Your task to perform on an android device: Search for "logitech g910" on target, select the first entry, and add it to the cart. Image 0: 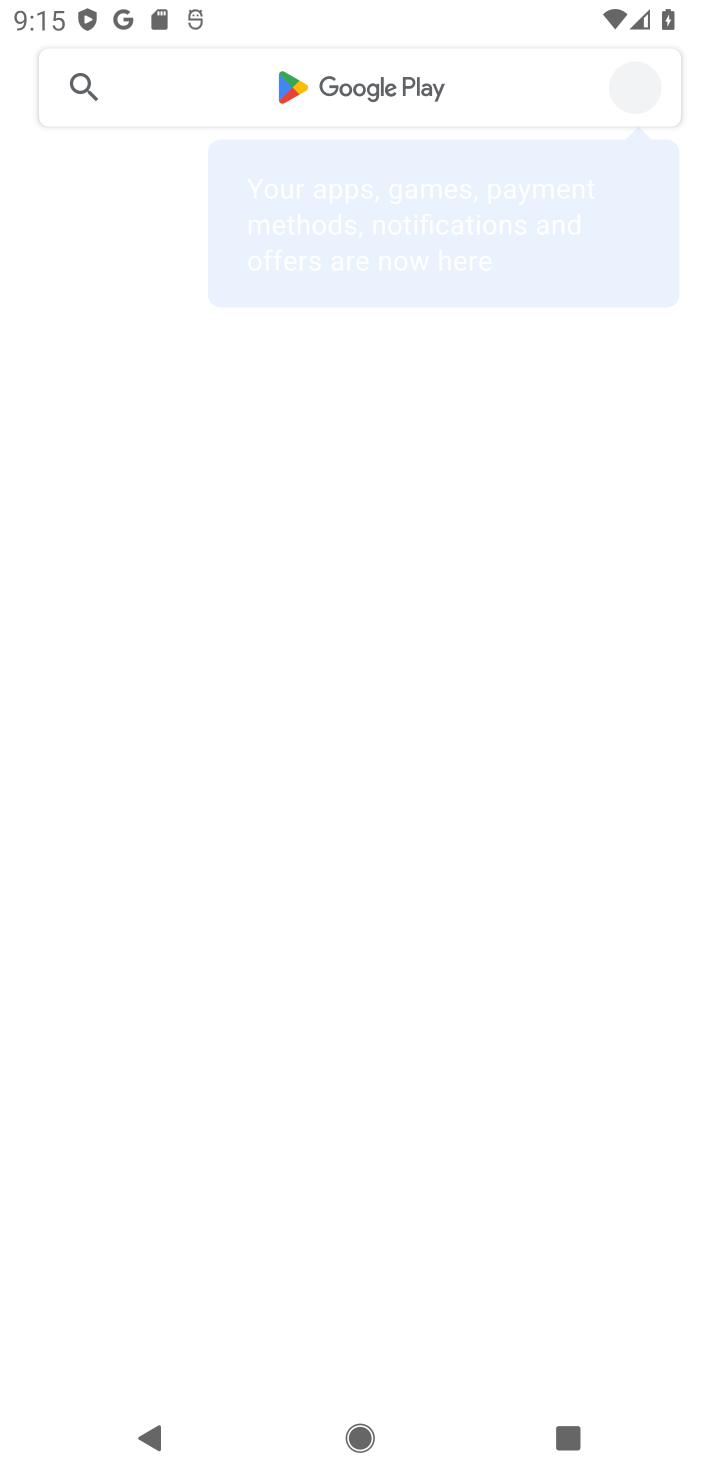
Step 0: press home button
Your task to perform on an android device: Search for "logitech g910" on target, select the first entry, and add it to the cart. Image 1: 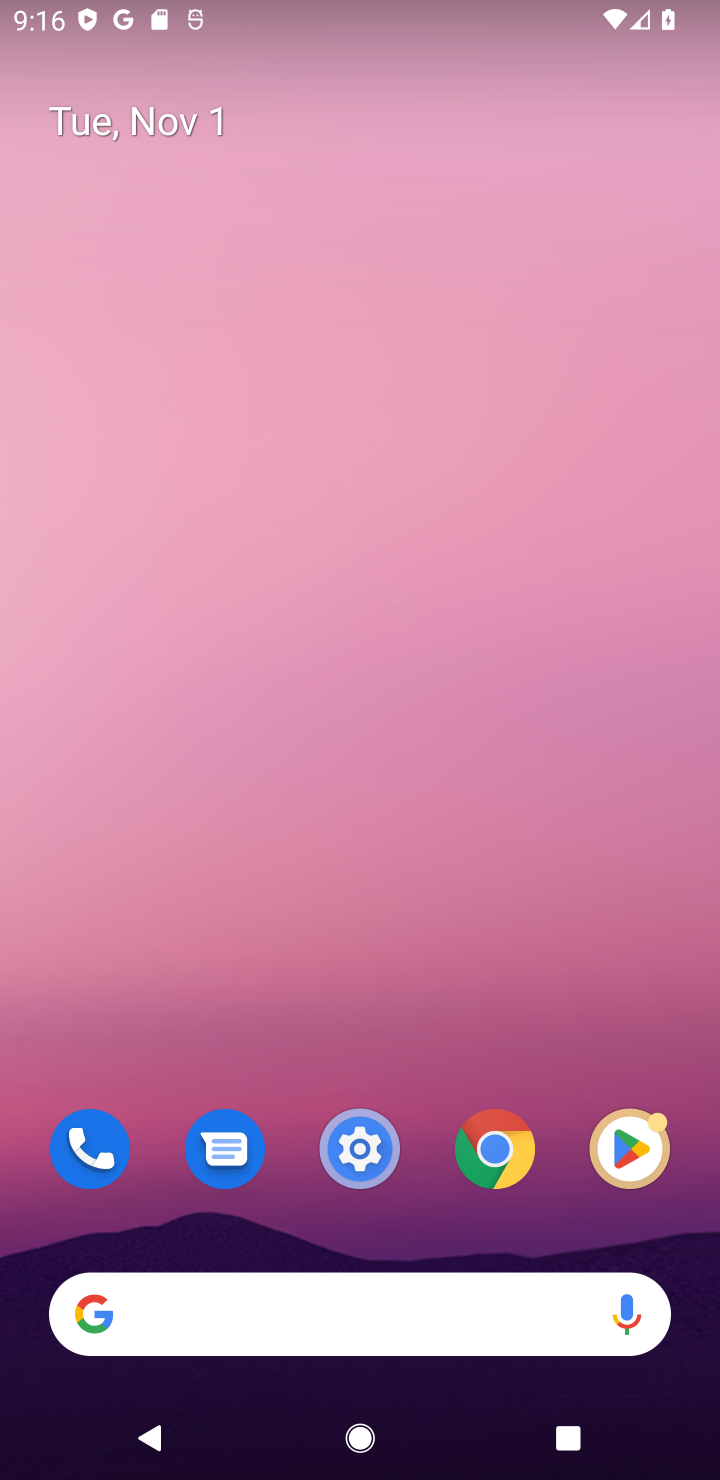
Step 1: click (161, 1299)
Your task to perform on an android device: Search for "logitech g910" on target, select the first entry, and add it to the cart. Image 2: 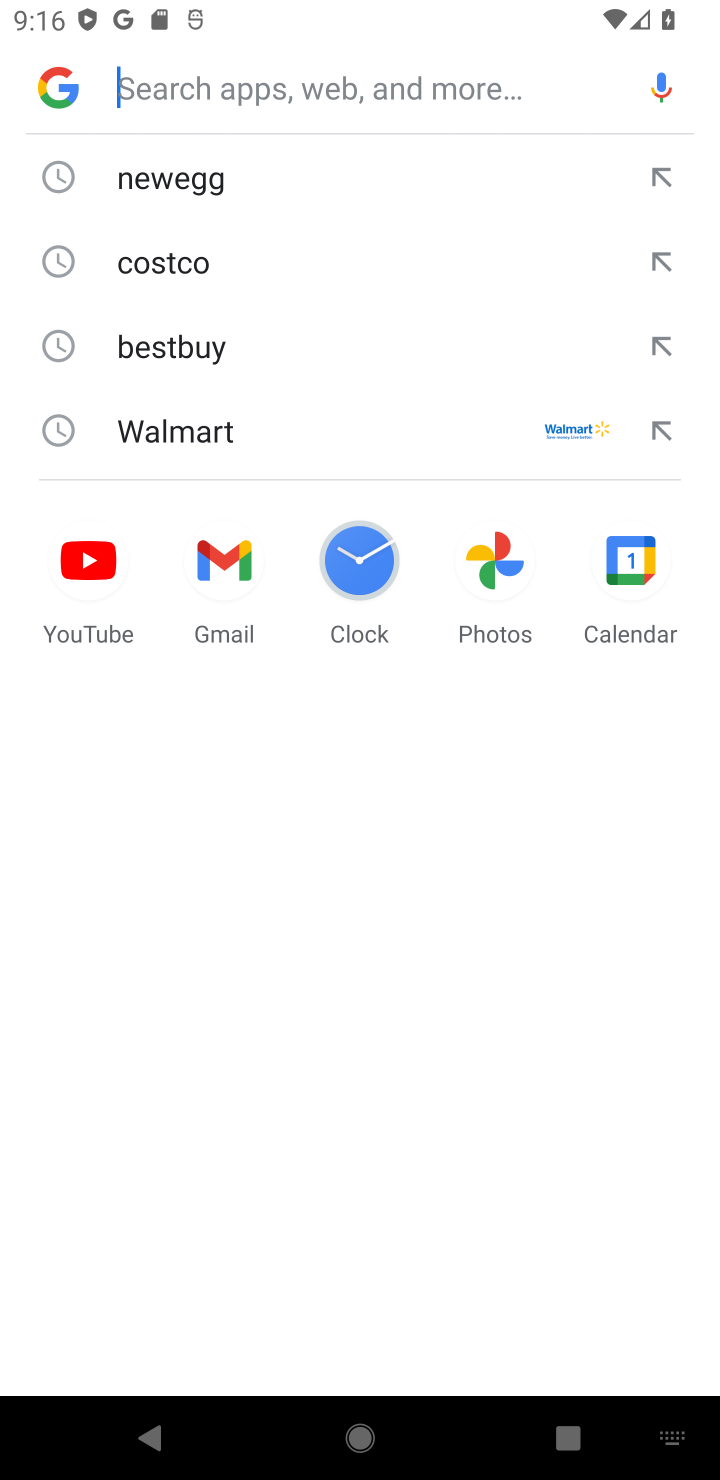
Step 2: press enter
Your task to perform on an android device: Search for "logitech g910" on target, select the first entry, and add it to the cart. Image 3: 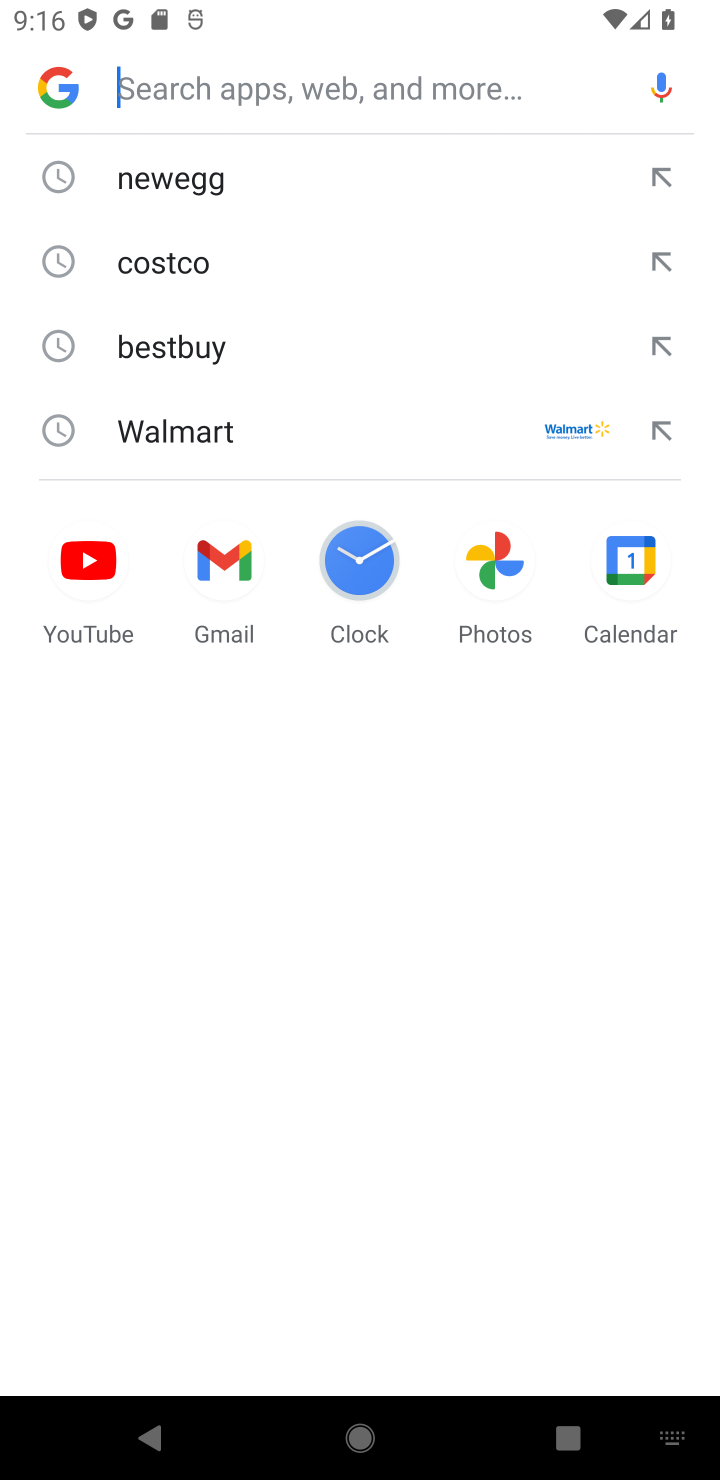
Step 3: type "traget"
Your task to perform on an android device: Search for "logitech g910" on target, select the first entry, and add it to the cart. Image 4: 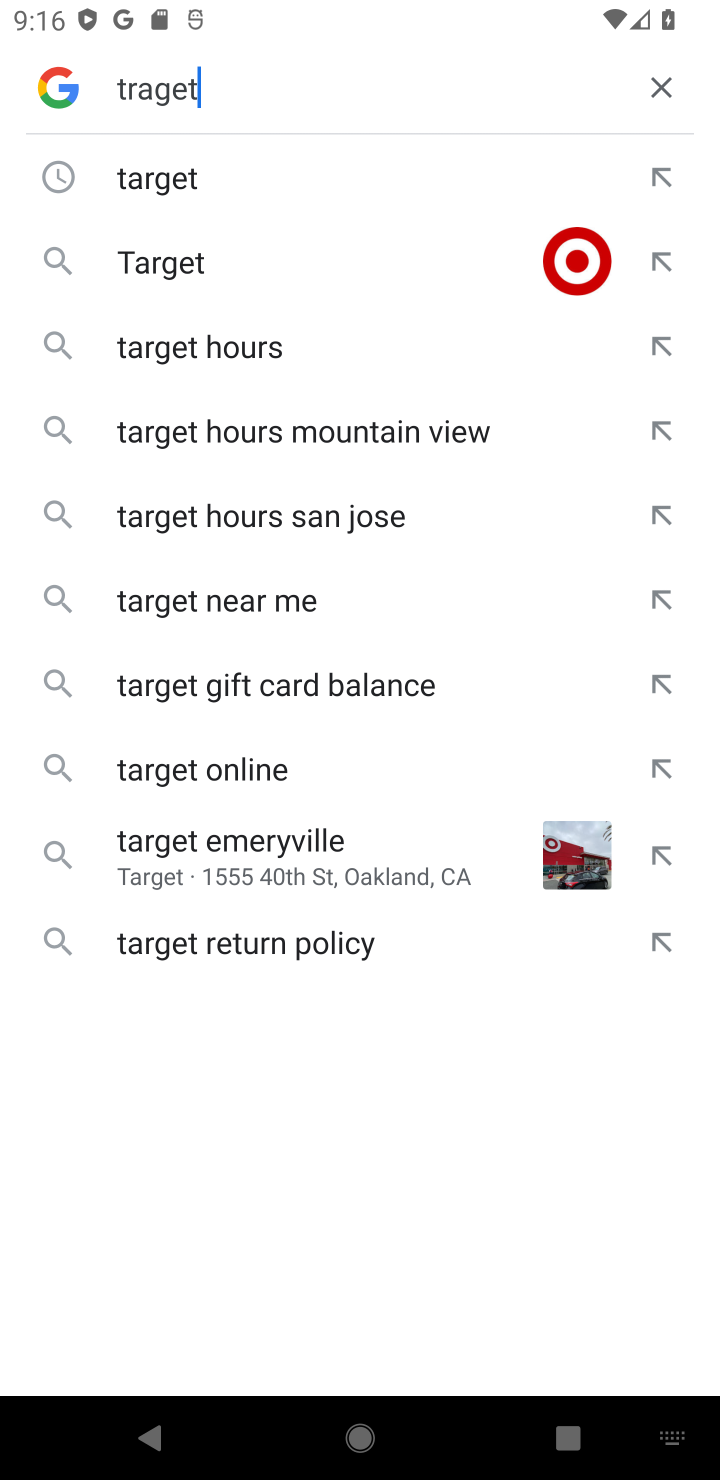
Step 4: press enter
Your task to perform on an android device: Search for "logitech g910" on target, select the first entry, and add it to the cart. Image 5: 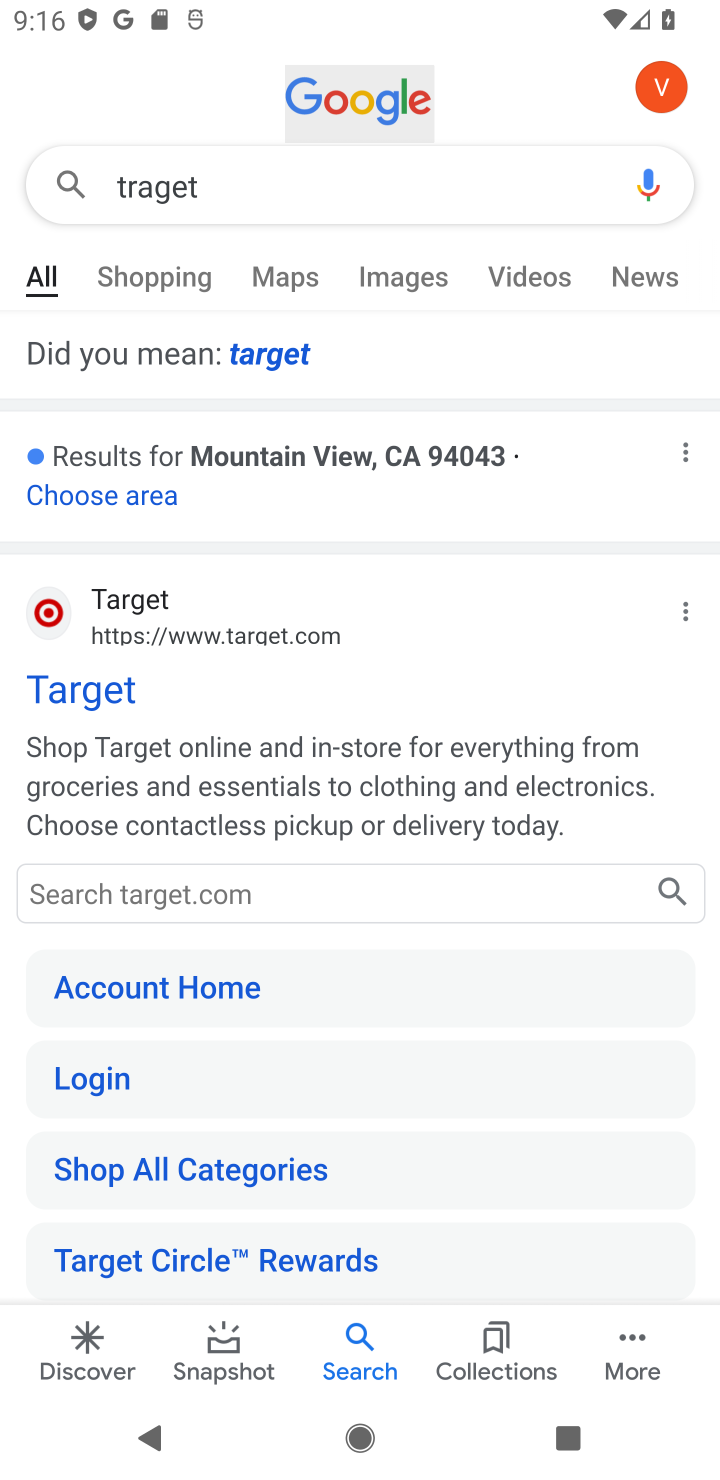
Step 5: click (71, 698)
Your task to perform on an android device: Search for "logitech g910" on target, select the first entry, and add it to the cart. Image 6: 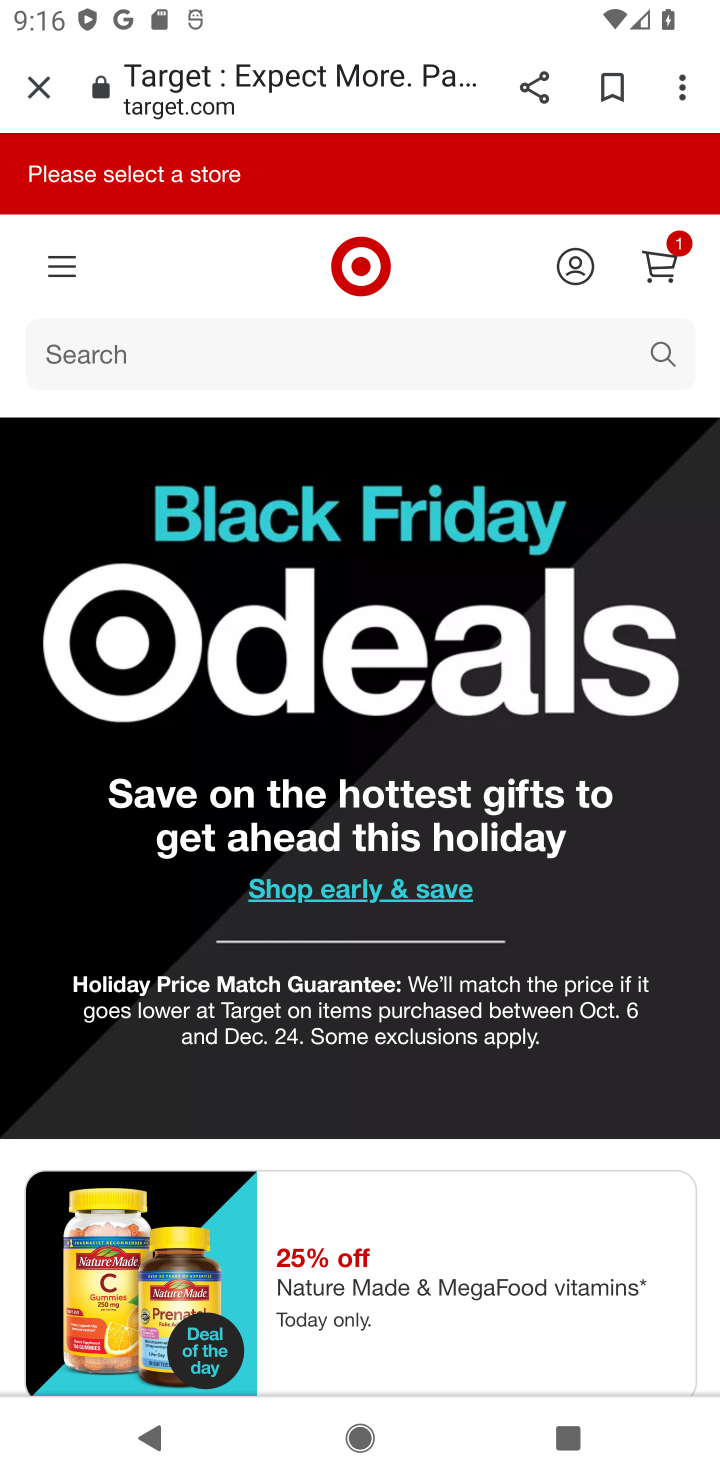
Step 6: click (109, 354)
Your task to perform on an android device: Search for "logitech g910" on target, select the first entry, and add it to the cart. Image 7: 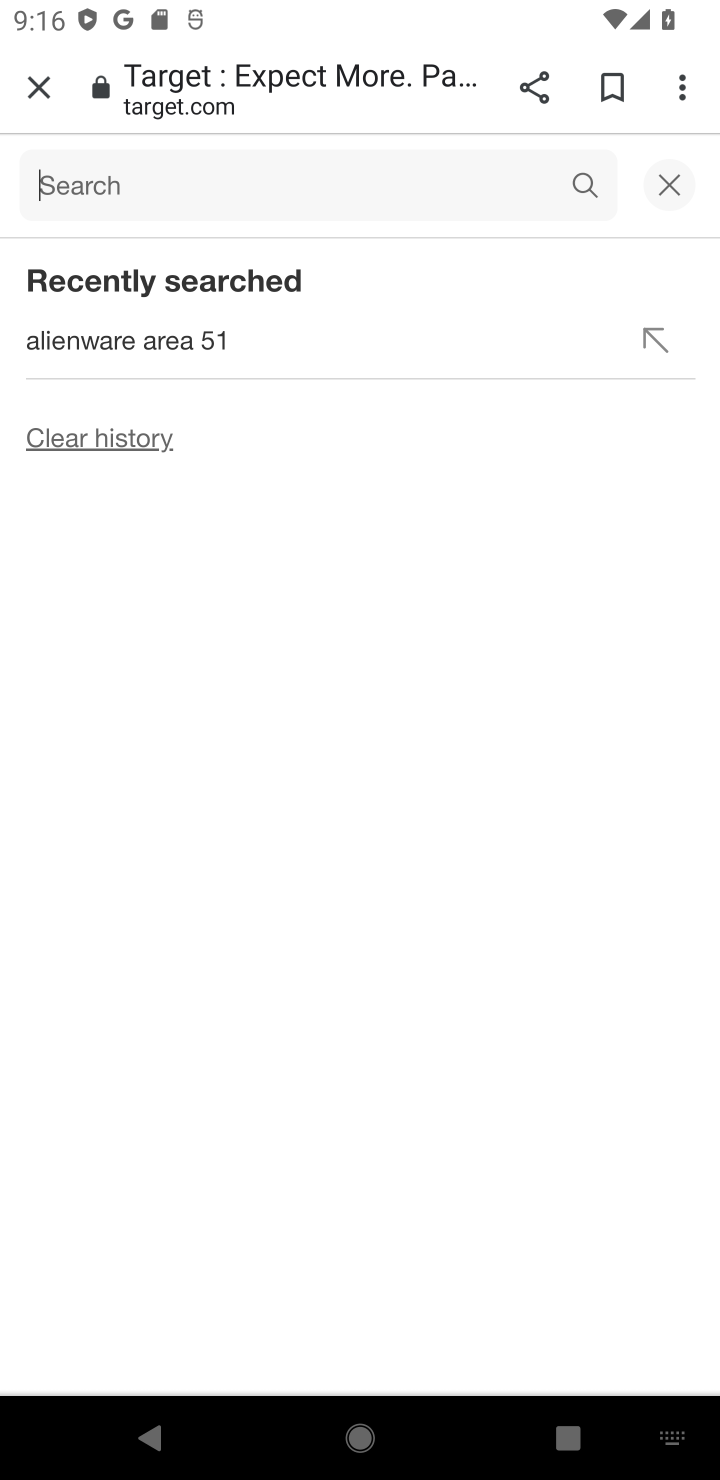
Step 7: type "logitech g910"
Your task to perform on an android device: Search for "logitech g910" on target, select the first entry, and add it to the cart. Image 8: 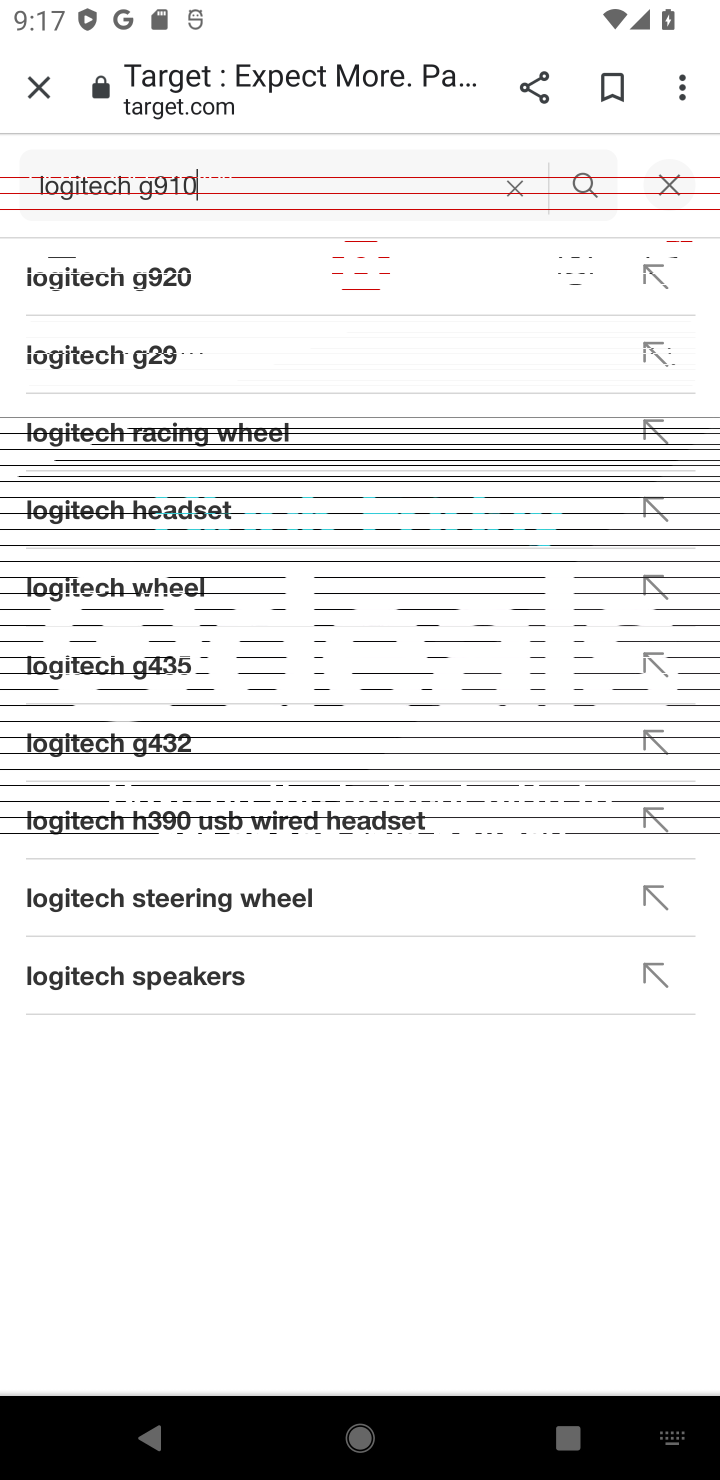
Step 8: press enter
Your task to perform on an android device: Search for "logitech g910" on target, select the first entry, and add it to the cart. Image 9: 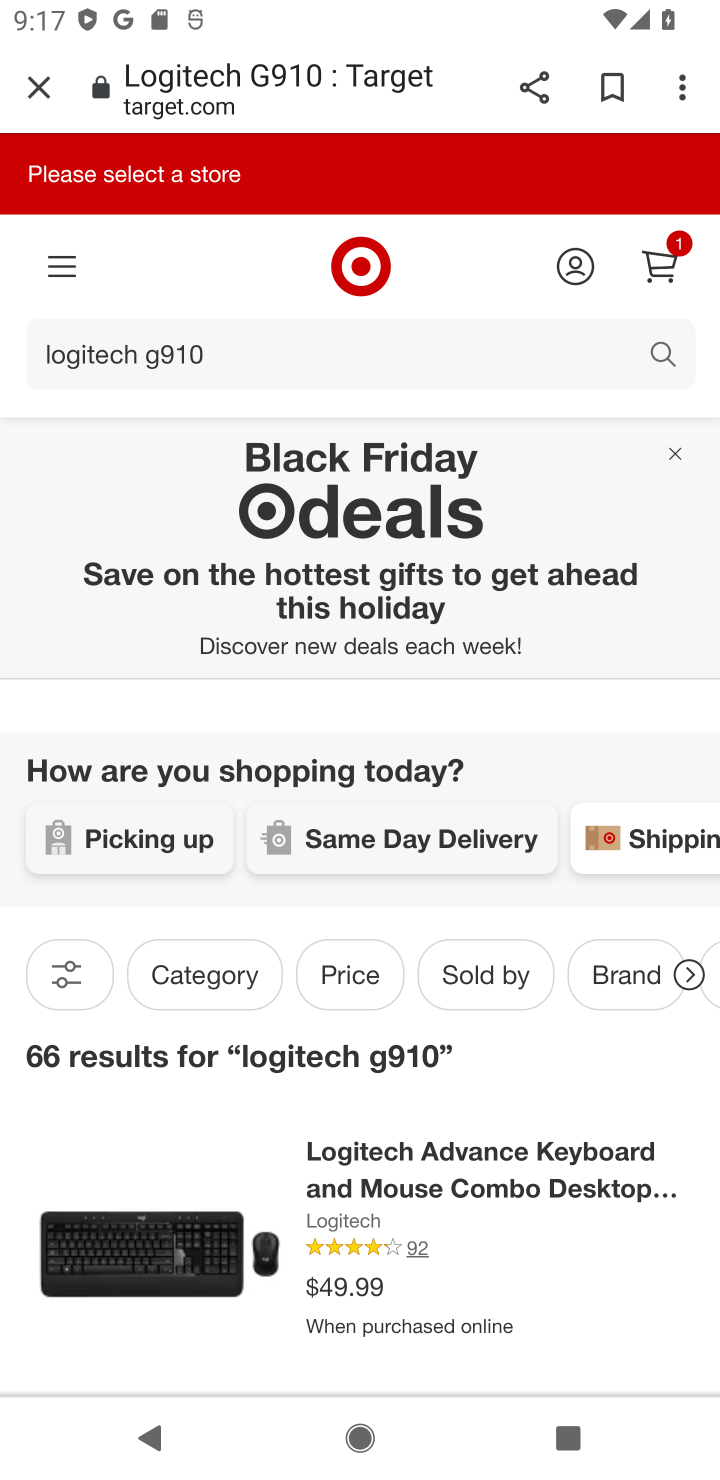
Step 9: task complete